Your task to perform on an android device: Check the news Image 0: 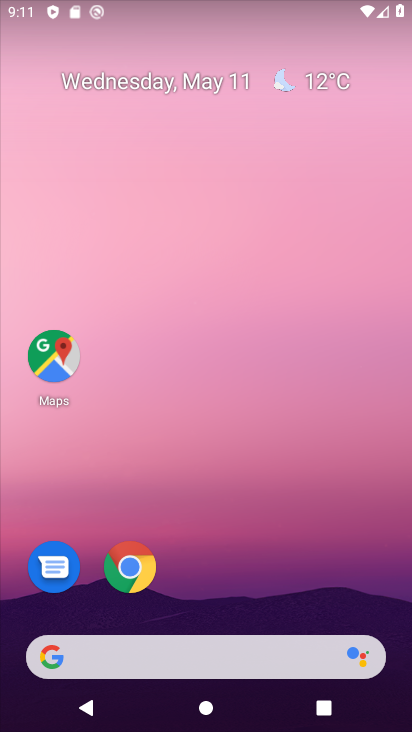
Step 0: drag from (161, 575) to (186, 360)
Your task to perform on an android device: Check the news Image 1: 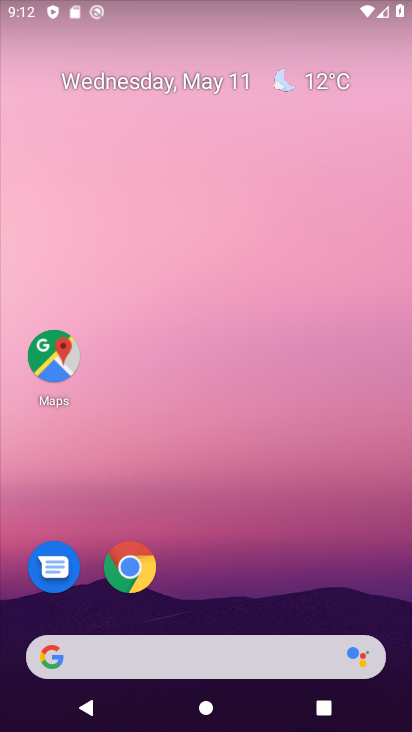
Step 1: click (122, 565)
Your task to perform on an android device: Check the news Image 2: 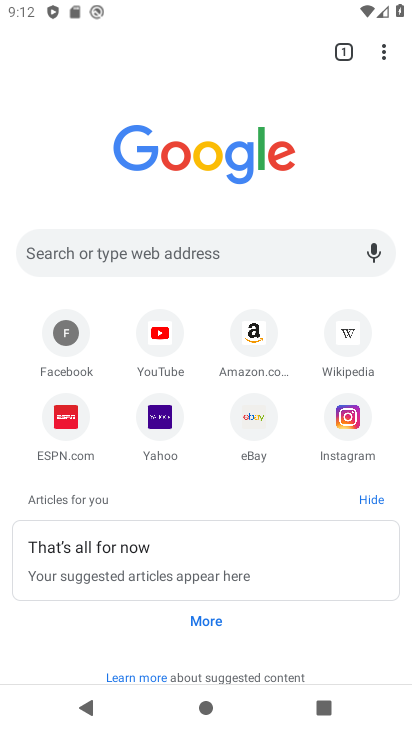
Step 2: click (57, 257)
Your task to perform on an android device: Check the news Image 3: 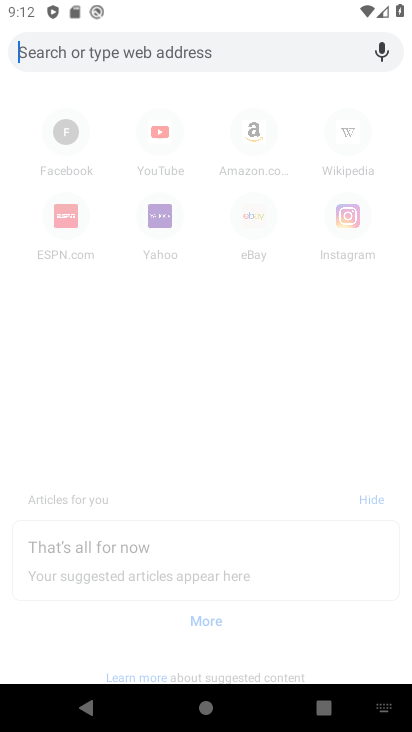
Step 3: type "news"
Your task to perform on an android device: Check the news Image 4: 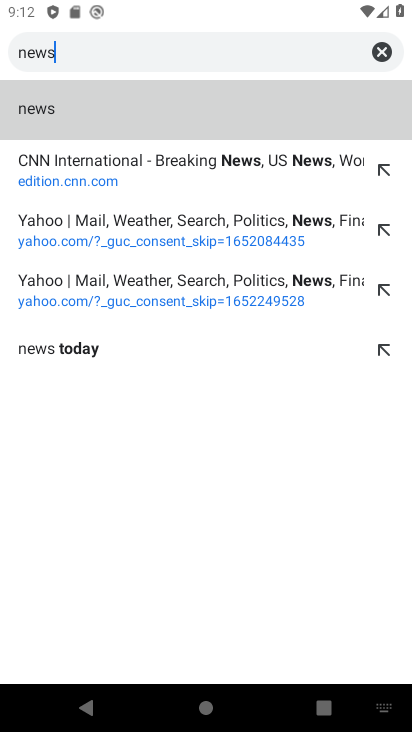
Step 4: click (73, 115)
Your task to perform on an android device: Check the news Image 5: 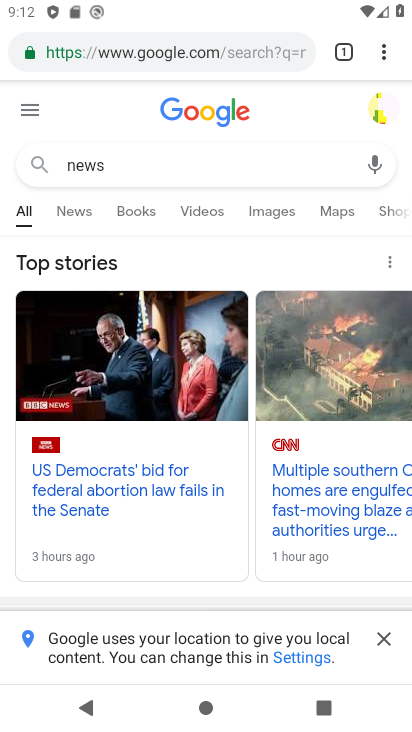
Step 5: task complete